Your task to perform on an android device: Set the phone to "Do not disturb". Image 0: 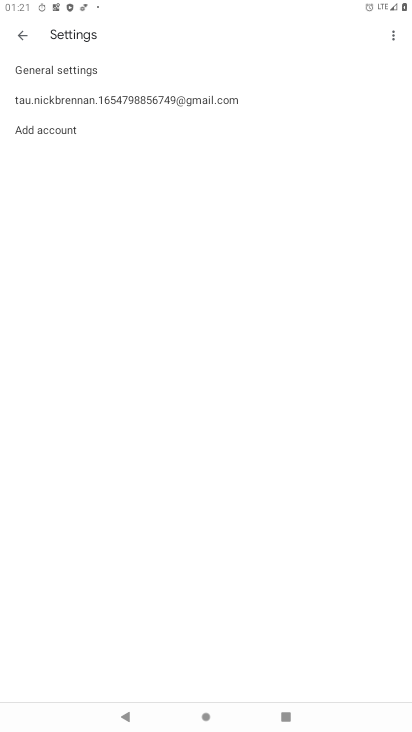
Step 0: press home button
Your task to perform on an android device: Set the phone to "Do not disturb". Image 1: 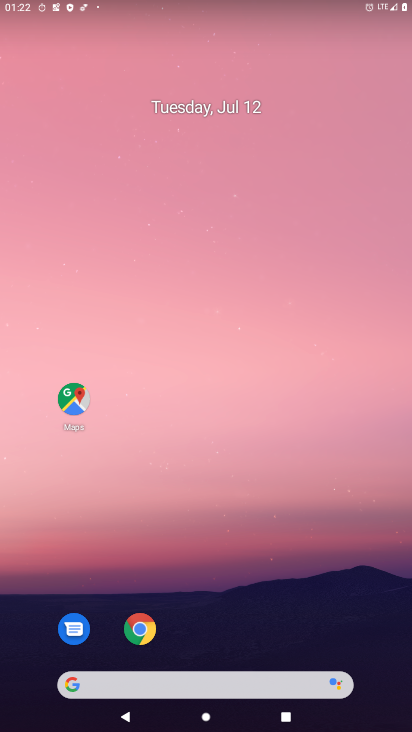
Step 1: drag from (47, 680) to (185, 169)
Your task to perform on an android device: Set the phone to "Do not disturb". Image 2: 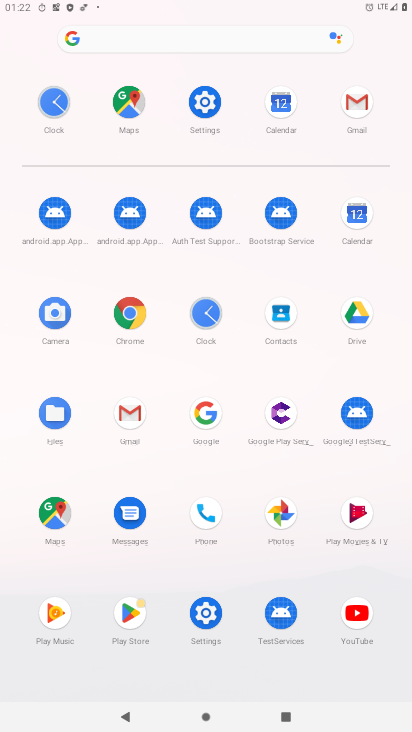
Step 2: click (196, 622)
Your task to perform on an android device: Set the phone to "Do not disturb". Image 3: 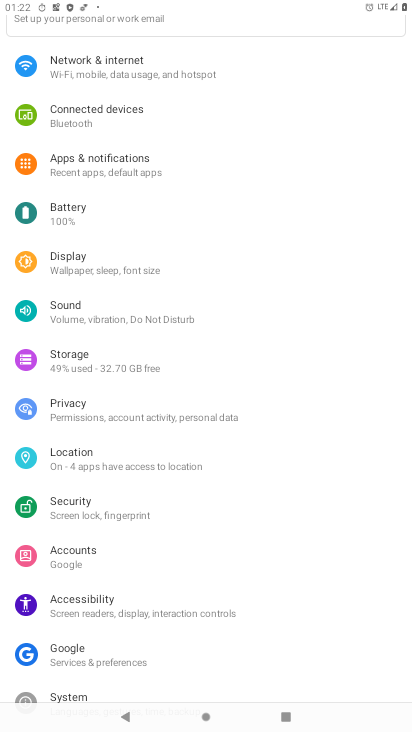
Step 3: click (102, 316)
Your task to perform on an android device: Set the phone to "Do not disturb". Image 4: 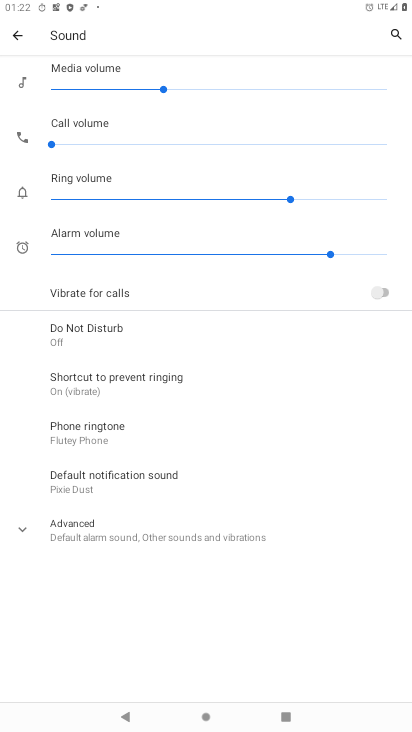
Step 4: click (93, 339)
Your task to perform on an android device: Set the phone to "Do not disturb". Image 5: 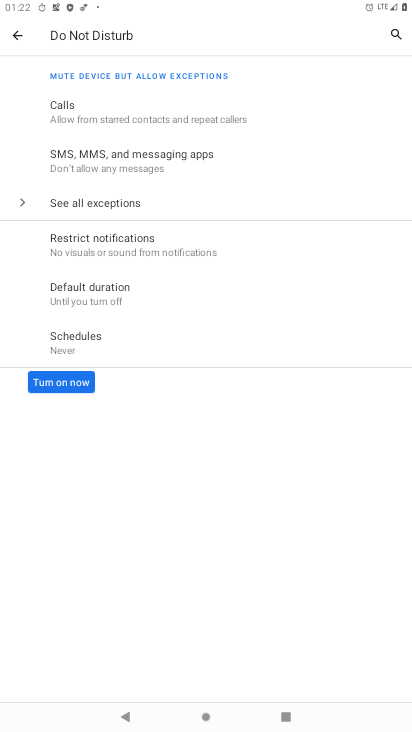
Step 5: click (51, 374)
Your task to perform on an android device: Set the phone to "Do not disturb". Image 6: 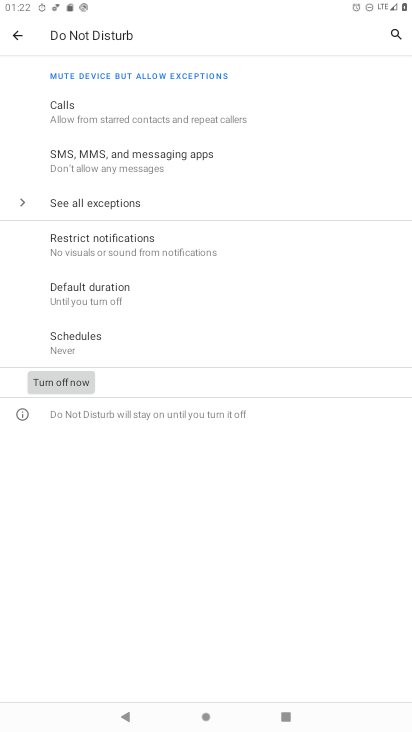
Step 6: task complete